Your task to perform on an android device: uninstall "Nova Launcher" Image 0: 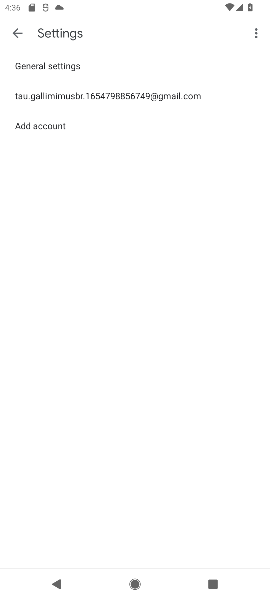
Step 0: press home button
Your task to perform on an android device: uninstall "Nova Launcher" Image 1: 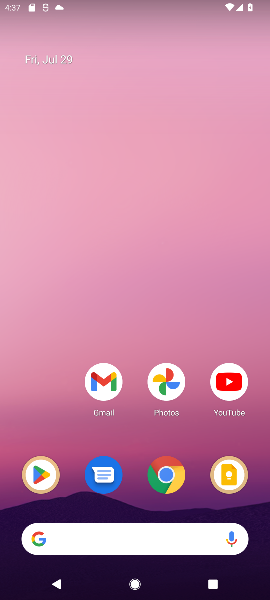
Step 1: click (40, 487)
Your task to perform on an android device: uninstall "Nova Launcher" Image 2: 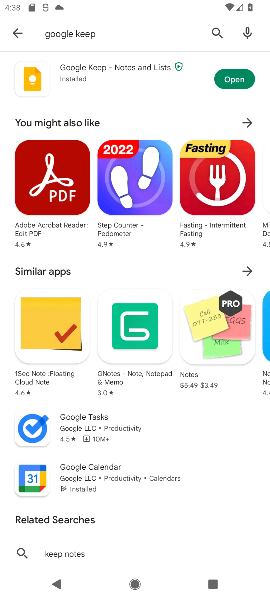
Step 2: type "Nova Launcher"
Your task to perform on an android device: uninstall "Nova Launcher" Image 3: 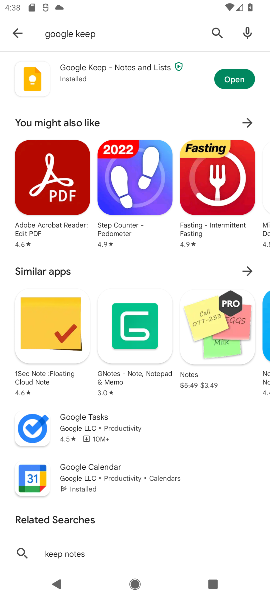
Step 3: click (218, 32)
Your task to perform on an android device: uninstall "Nova Launcher" Image 4: 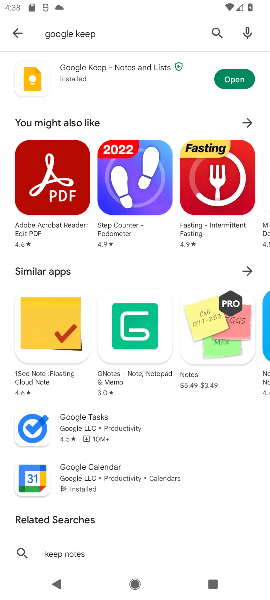
Step 4: click (218, 32)
Your task to perform on an android device: uninstall "Nova Launcher" Image 5: 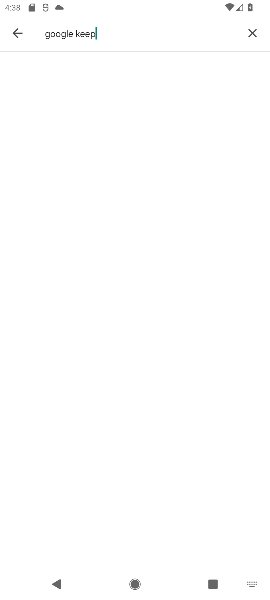
Step 5: click (218, 32)
Your task to perform on an android device: uninstall "Nova Launcher" Image 6: 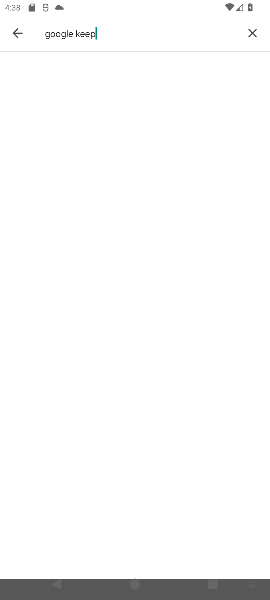
Step 6: click (218, 32)
Your task to perform on an android device: uninstall "Nova Launcher" Image 7: 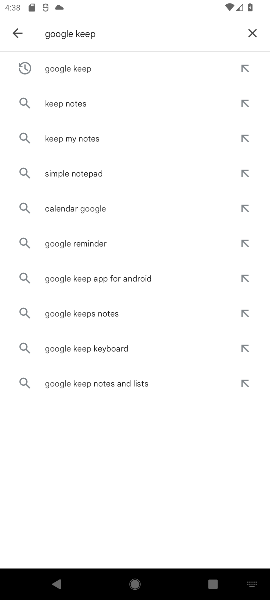
Step 7: click (218, 32)
Your task to perform on an android device: uninstall "Nova Launcher" Image 8: 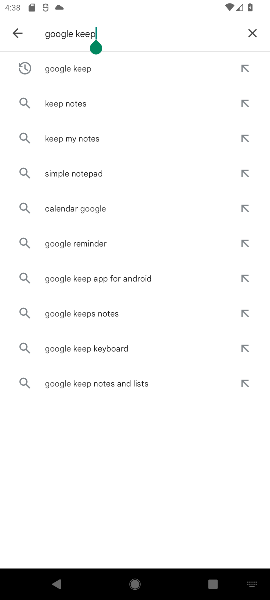
Step 8: click (250, 32)
Your task to perform on an android device: uninstall "Nova Launcher" Image 9: 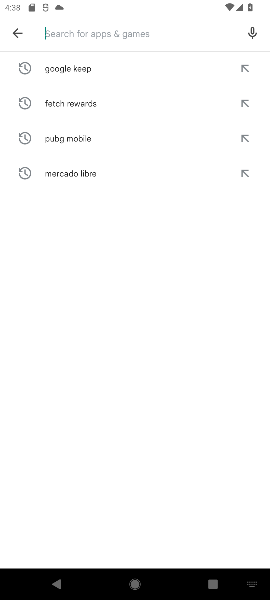
Step 9: type "Nova Launcher"
Your task to perform on an android device: uninstall "Nova Launcher" Image 10: 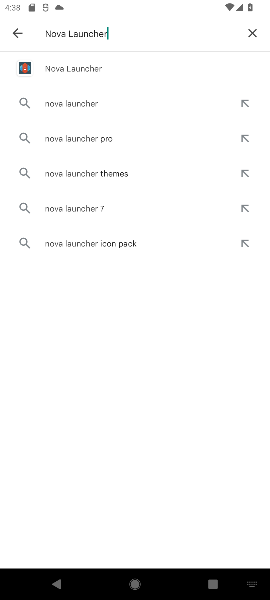
Step 10: click (93, 60)
Your task to perform on an android device: uninstall "Nova Launcher" Image 11: 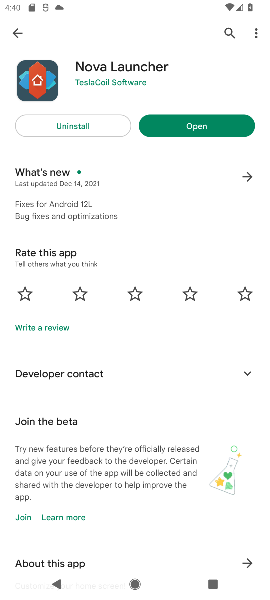
Step 11: click (55, 118)
Your task to perform on an android device: uninstall "Nova Launcher" Image 12: 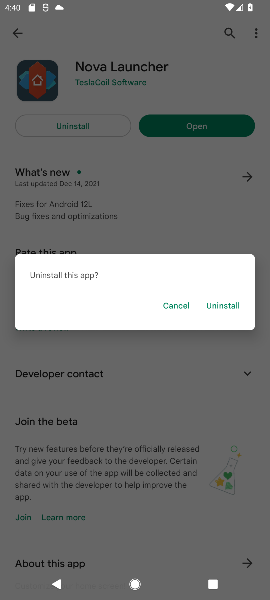
Step 12: click (227, 313)
Your task to perform on an android device: uninstall "Nova Launcher" Image 13: 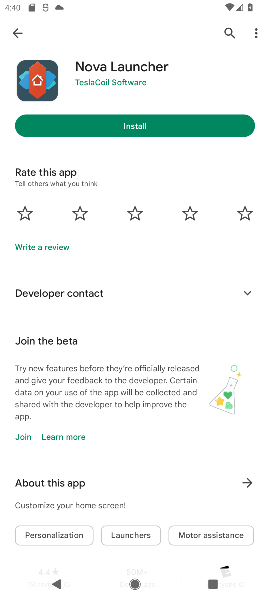
Step 13: task complete